Your task to perform on an android device: Open Chrome and go to the settings page Image 0: 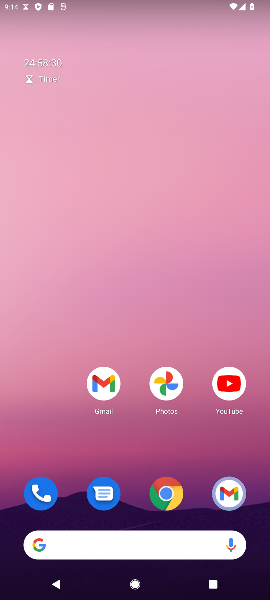
Step 0: drag from (23, 426) to (0, 50)
Your task to perform on an android device: Open Chrome and go to the settings page Image 1: 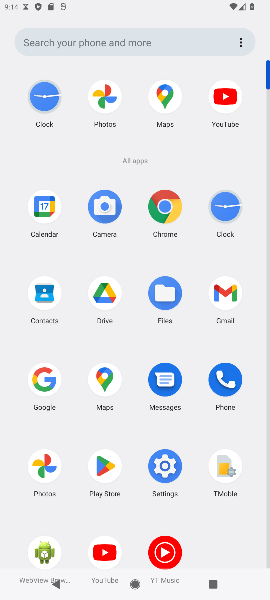
Step 1: click (164, 244)
Your task to perform on an android device: Open Chrome and go to the settings page Image 2: 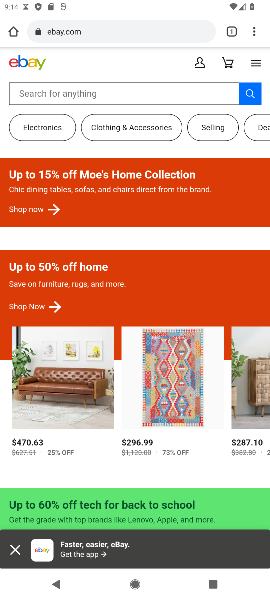
Step 2: task complete